Your task to perform on an android device: Open Youtube and go to "Your channel" Image 0: 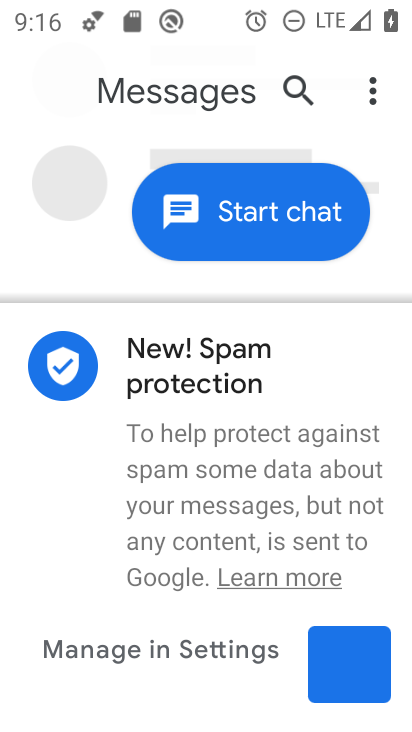
Step 0: press home button
Your task to perform on an android device: Open Youtube and go to "Your channel" Image 1: 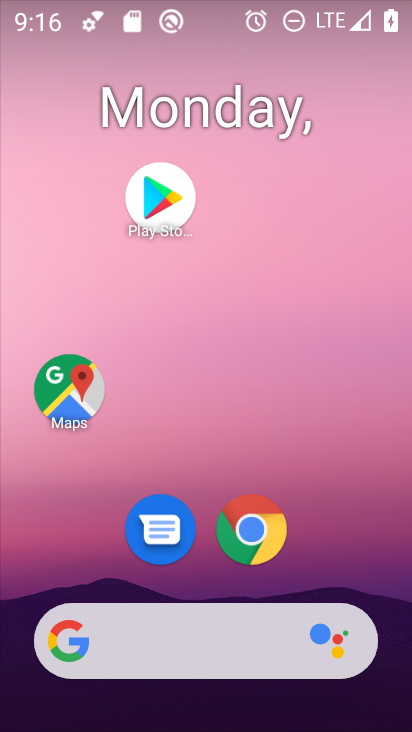
Step 1: drag from (326, 522) to (235, 59)
Your task to perform on an android device: Open Youtube and go to "Your channel" Image 2: 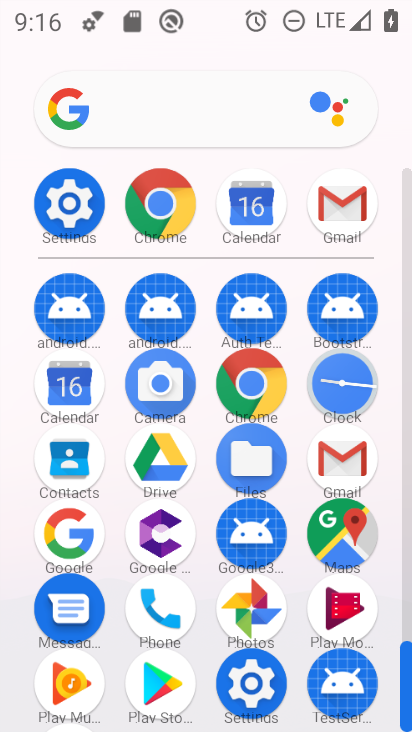
Step 2: drag from (210, 659) to (197, 287)
Your task to perform on an android device: Open Youtube and go to "Your channel" Image 3: 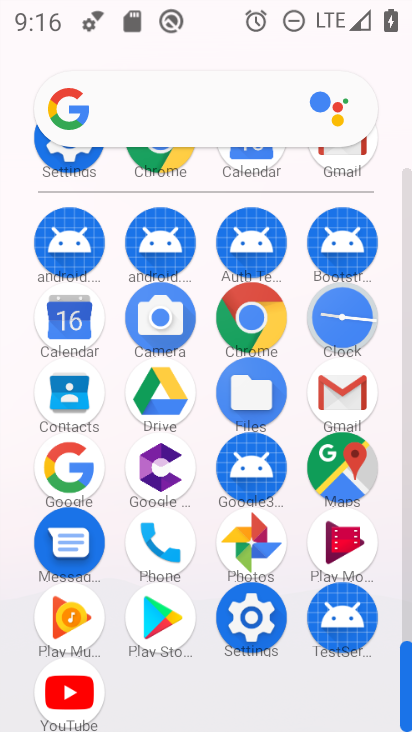
Step 3: click (67, 686)
Your task to perform on an android device: Open Youtube and go to "Your channel" Image 4: 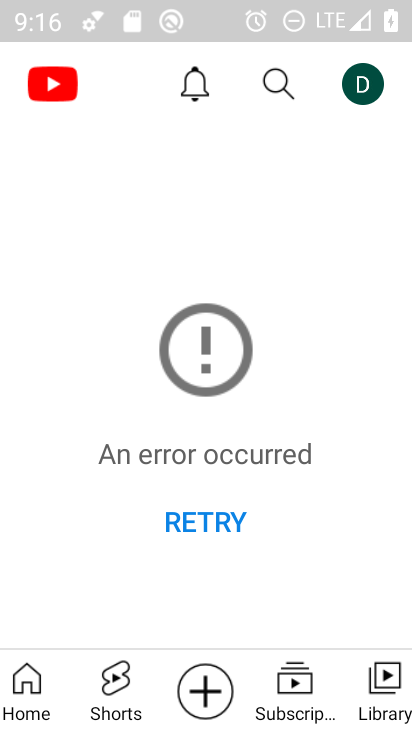
Step 4: click (278, 155)
Your task to perform on an android device: Open Youtube and go to "Your channel" Image 5: 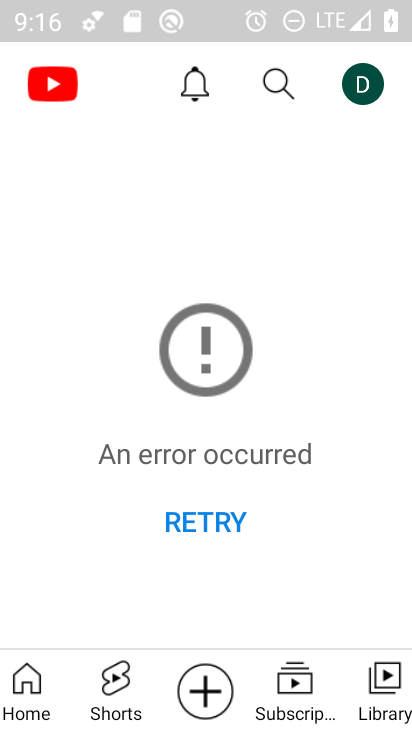
Step 5: click (362, 84)
Your task to perform on an android device: Open Youtube and go to "Your channel" Image 6: 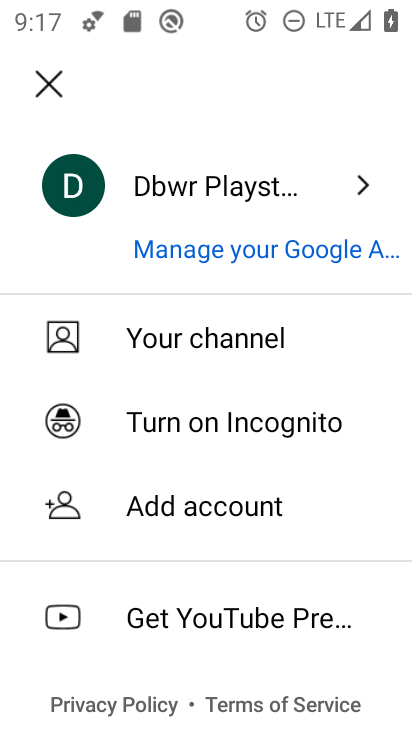
Step 6: click (228, 341)
Your task to perform on an android device: Open Youtube and go to "Your channel" Image 7: 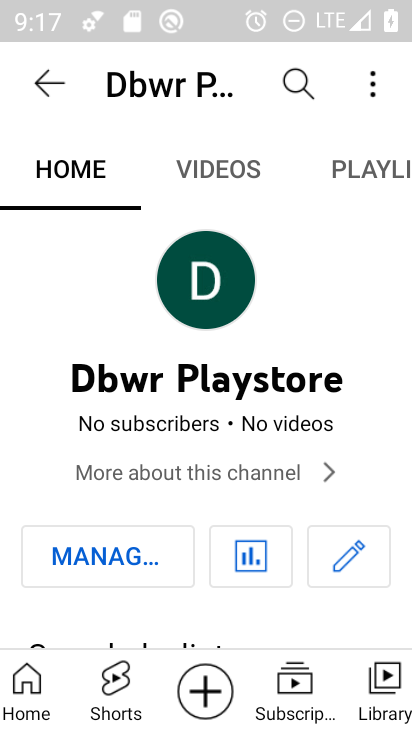
Step 7: task complete